Your task to perform on an android device: Open Youtube and go to "Your channel" Image 0: 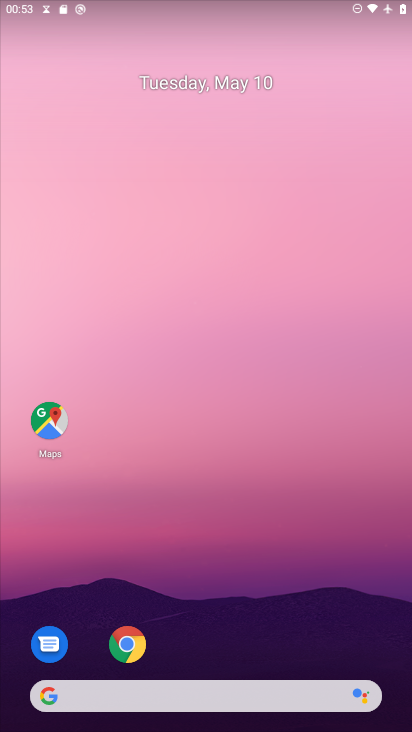
Step 0: drag from (204, 639) to (272, 168)
Your task to perform on an android device: Open Youtube and go to "Your channel" Image 1: 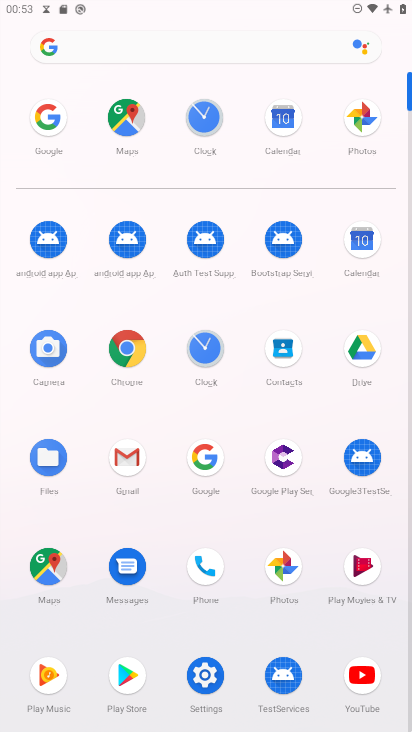
Step 1: click (357, 691)
Your task to perform on an android device: Open Youtube and go to "Your channel" Image 2: 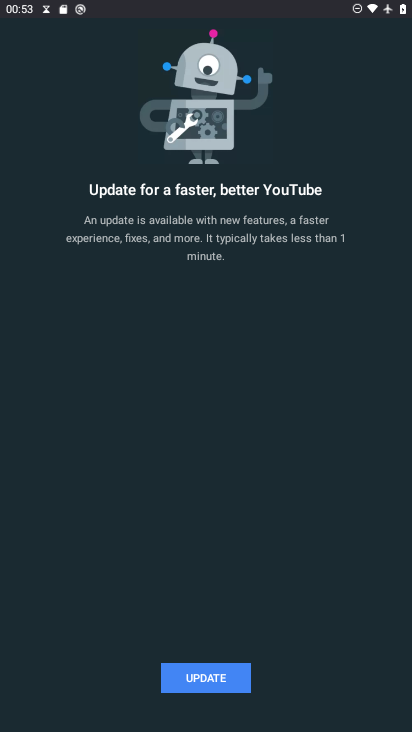
Step 2: click (222, 670)
Your task to perform on an android device: Open Youtube and go to "Your channel" Image 3: 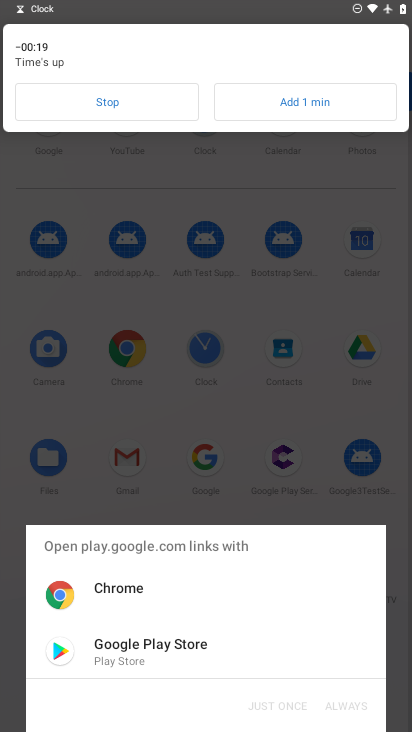
Step 3: click (181, 648)
Your task to perform on an android device: Open Youtube and go to "Your channel" Image 4: 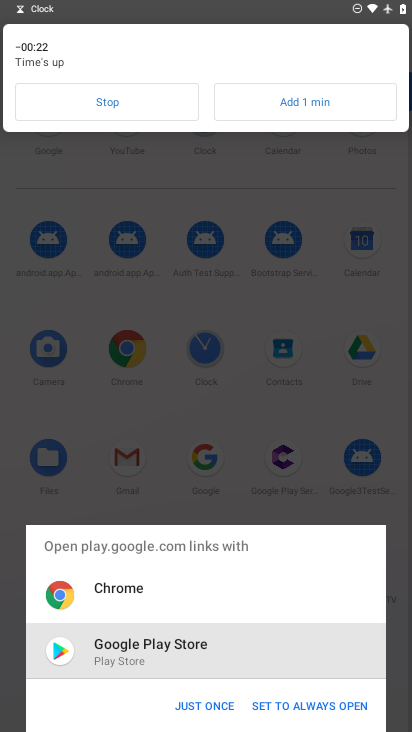
Step 4: click (195, 698)
Your task to perform on an android device: Open Youtube and go to "Your channel" Image 5: 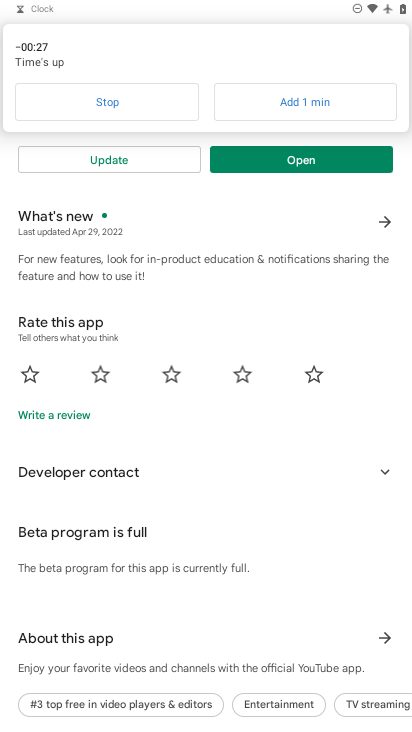
Step 5: click (157, 158)
Your task to perform on an android device: Open Youtube and go to "Your channel" Image 6: 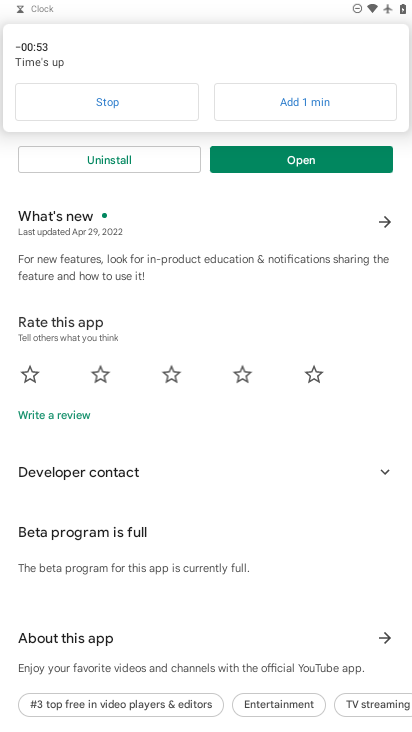
Step 6: click (138, 103)
Your task to perform on an android device: Open Youtube and go to "Your channel" Image 7: 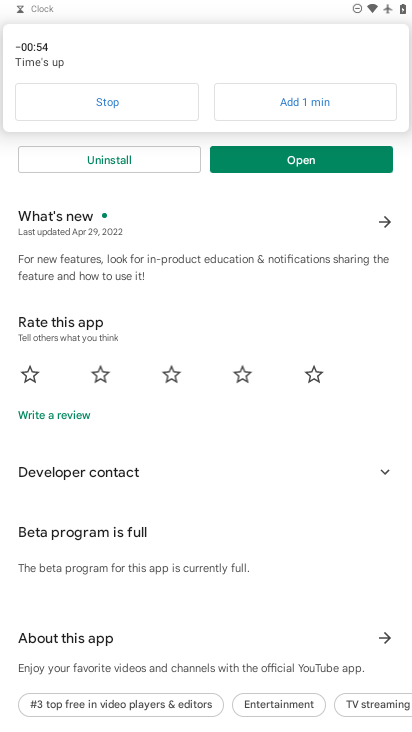
Step 7: click (270, 160)
Your task to perform on an android device: Open Youtube and go to "Your channel" Image 8: 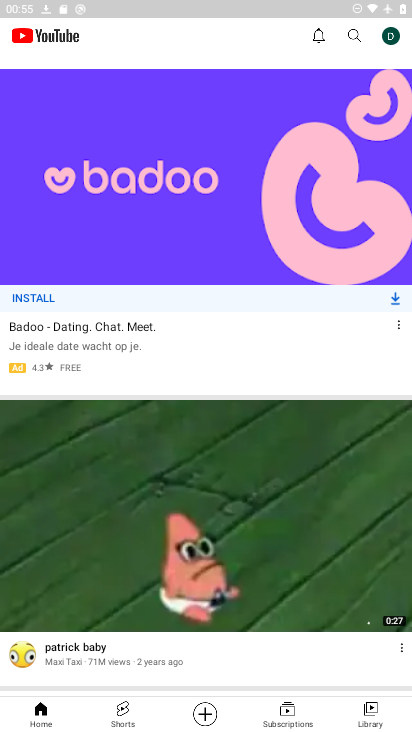
Step 8: click (385, 34)
Your task to perform on an android device: Open Youtube and go to "Your channel" Image 9: 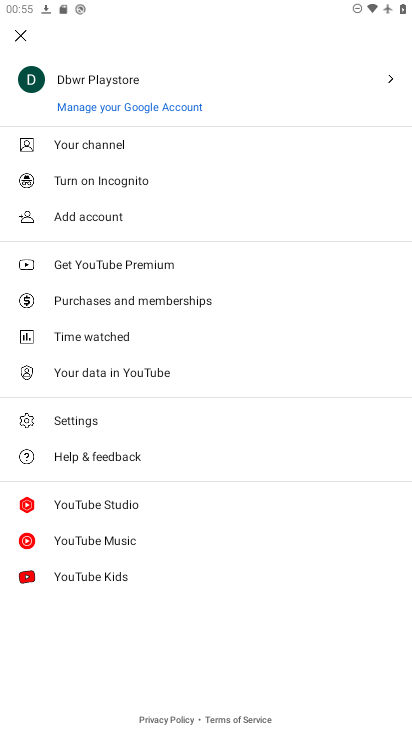
Step 9: click (102, 134)
Your task to perform on an android device: Open Youtube and go to "Your channel" Image 10: 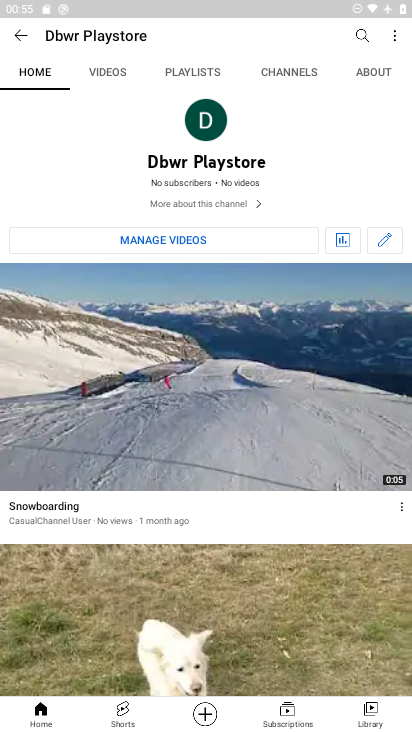
Step 10: task complete